Your task to perform on an android device: check battery use Image 0: 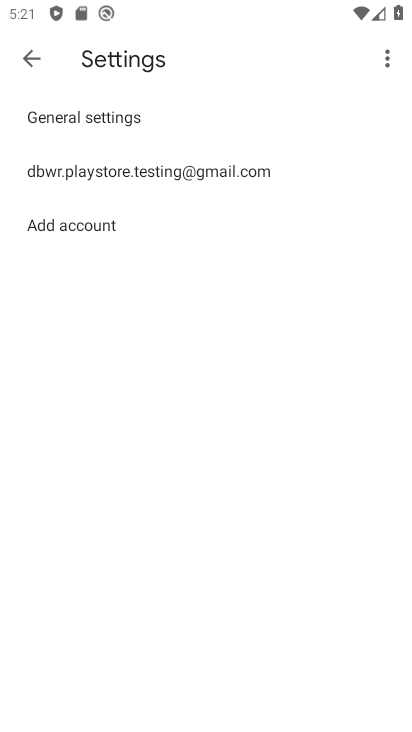
Step 0: press home button
Your task to perform on an android device: check battery use Image 1: 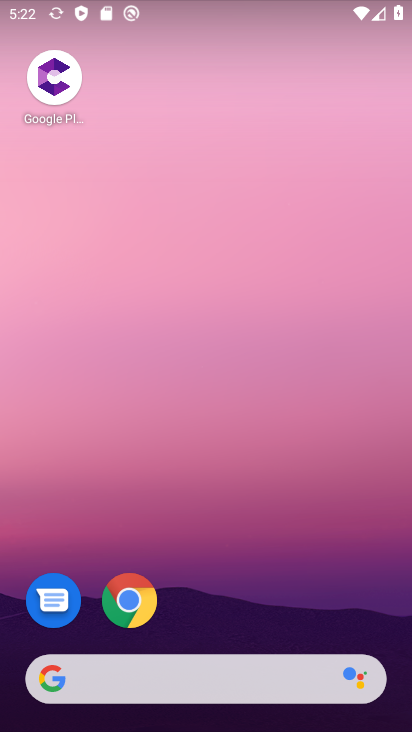
Step 1: drag from (255, 621) to (292, 118)
Your task to perform on an android device: check battery use Image 2: 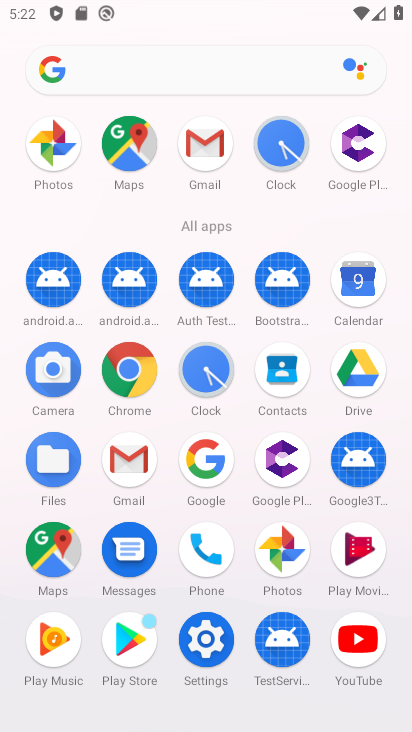
Step 2: click (208, 637)
Your task to perform on an android device: check battery use Image 3: 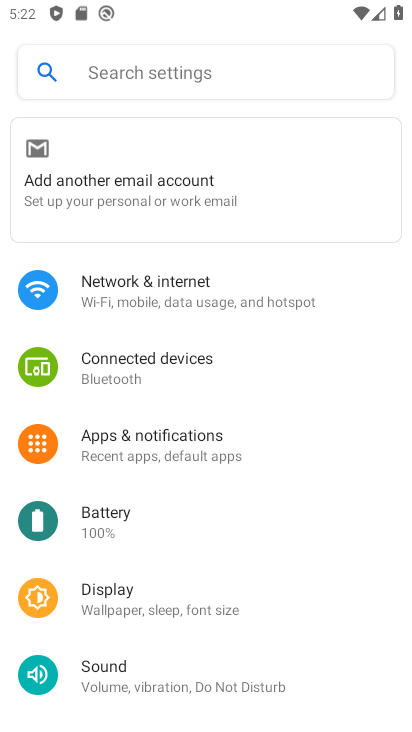
Step 3: click (148, 518)
Your task to perform on an android device: check battery use Image 4: 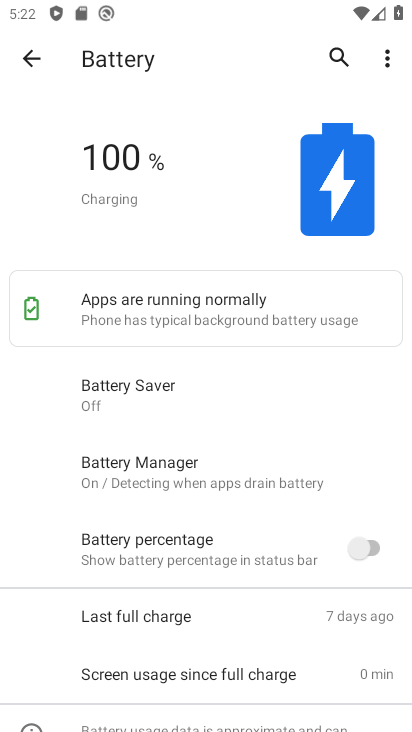
Step 4: click (391, 52)
Your task to perform on an android device: check battery use Image 5: 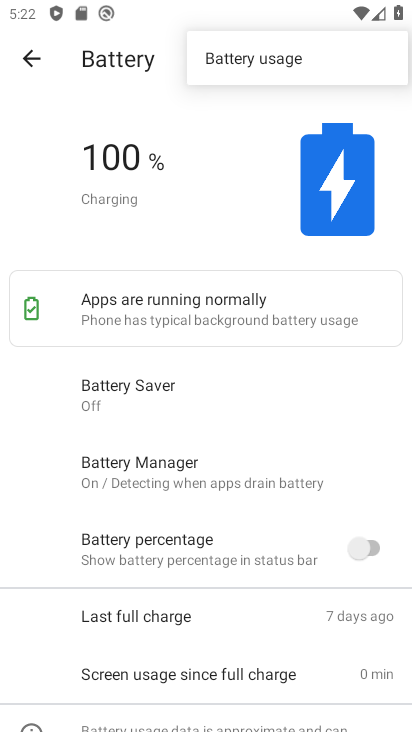
Step 5: click (324, 58)
Your task to perform on an android device: check battery use Image 6: 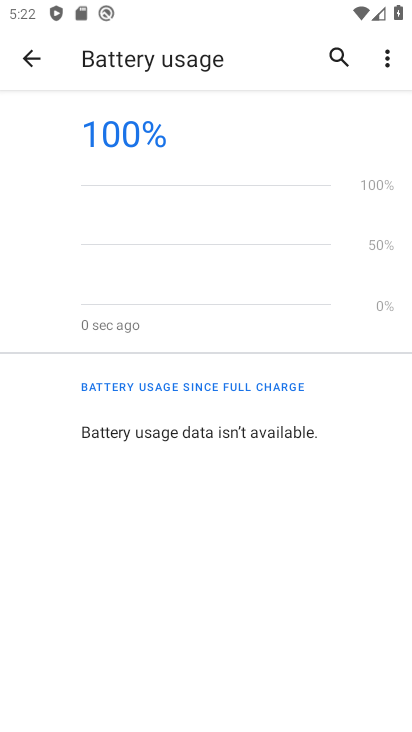
Step 6: task complete